Your task to perform on an android device: turn on notifications settings in the gmail app Image 0: 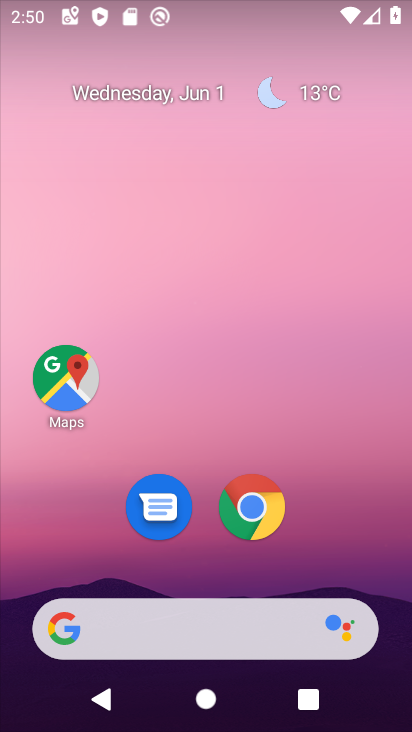
Step 0: drag from (360, 529) to (124, 215)
Your task to perform on an android device: turn on notifications settings in the gmail app Image 1: 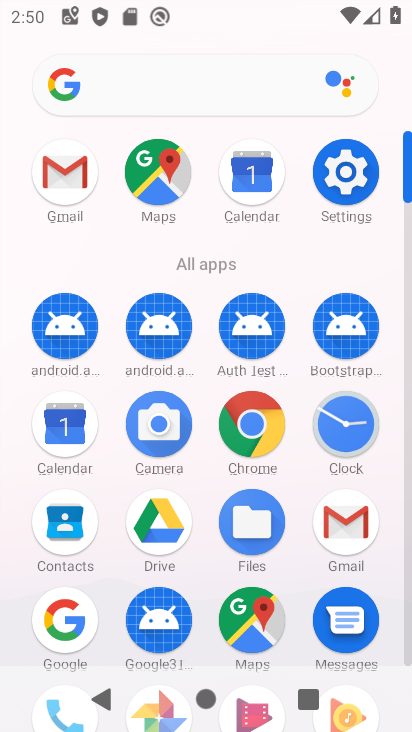
Step 1: click (345, 534)
Your task to perform on an android device: turn on notifications settings in the gmail app Image 2: 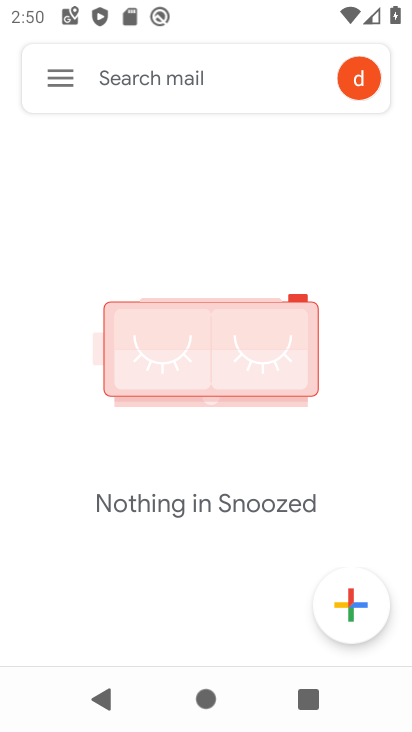
Step 2: click (58, 87)
Your task to perform on an android device: turn on notifications settings in the gmail app Image 3: 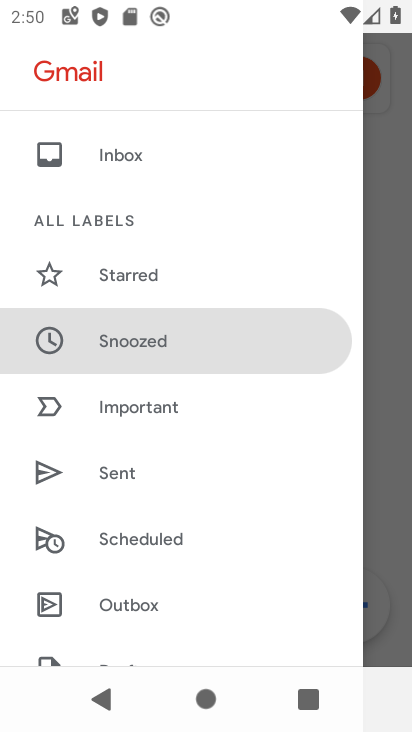
Step 3: drag from (174, 584) to (203, 55)
Your task to perform on an android device: turn on notifications settings in the gmail app Image 4: 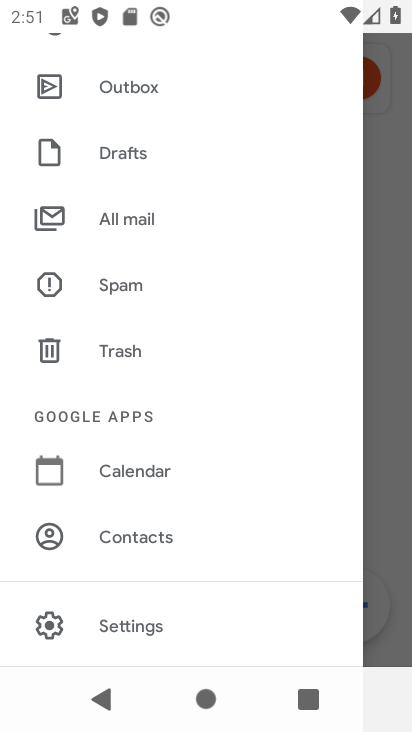
Step 4: click (147, 637)
Your task to perform on an android device: turn on notifications settings in the gmail app Image 5: 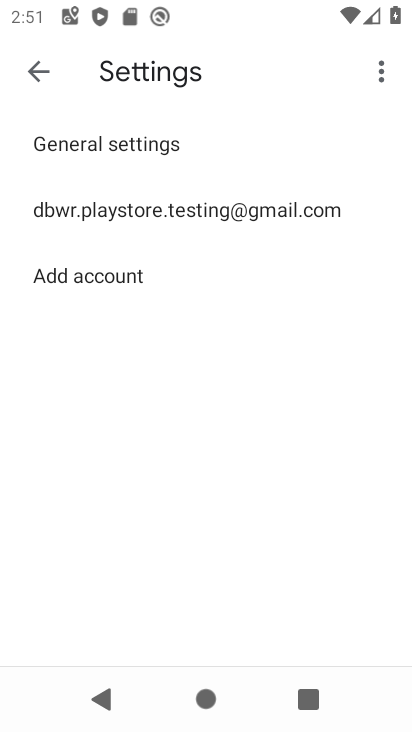
Step 5: click (171, 212)
Your task to perform on an android device: turn on notifications settings in the gmail app Image 6: 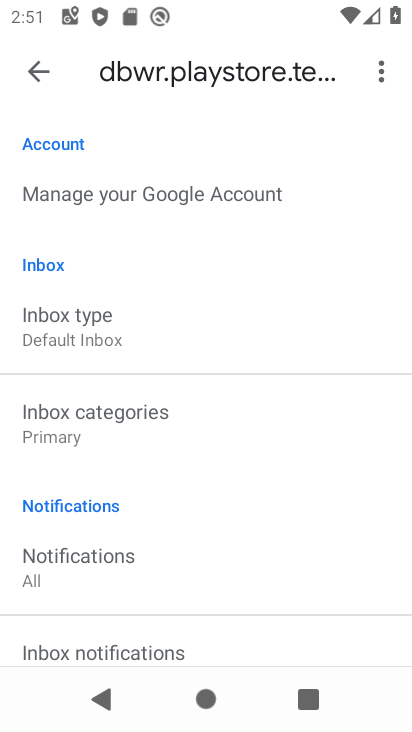
Step 6: drag from (128, 593) to (96, 224)
Your task to perform on an android device: turn on notifications settings in the gmail app Image 7: 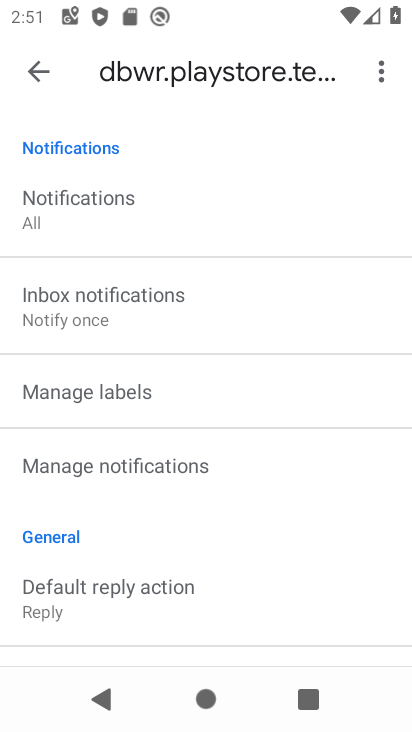
Step 7: click (100, 466)
Your task to perform on an android device: turn on notifications settings in the gmail app Image 8: 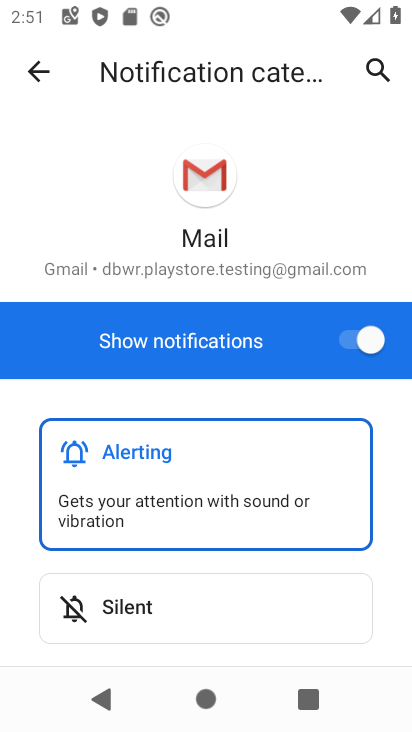
Step 8: task complete